Your task to perform on an android device: show emergency info Image 0: 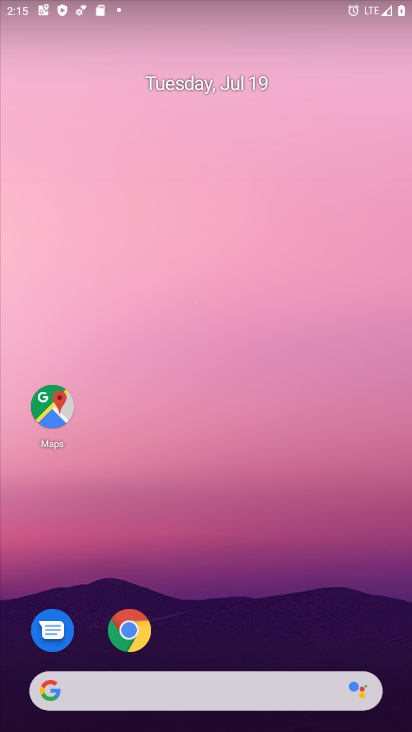
Step 0: press home button
Your task to perform on an android device: show emergency info Image 1: 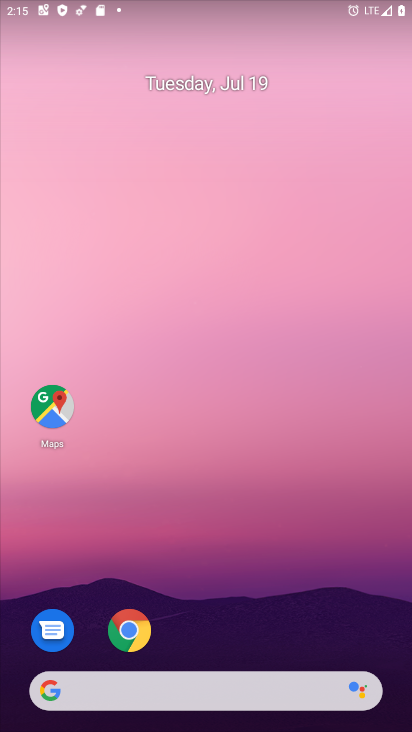
Step 1: drag from (223, 650) to (244, 91)
Your task to perform on an android device: show emergency info Image 2: 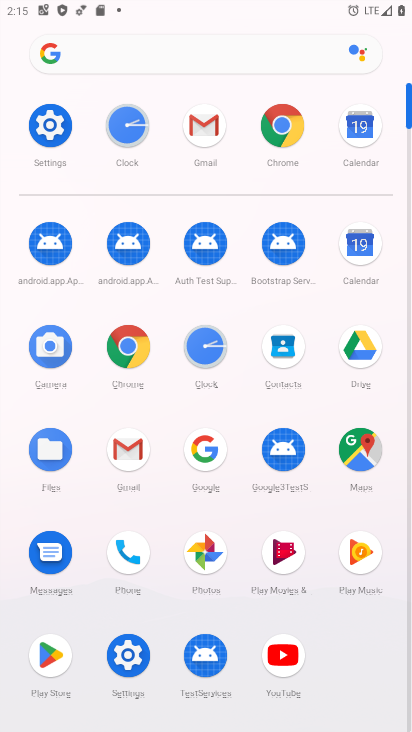
Step 2: click (48, 117)
Your task to perform on an android device: show emergency info Image 3: 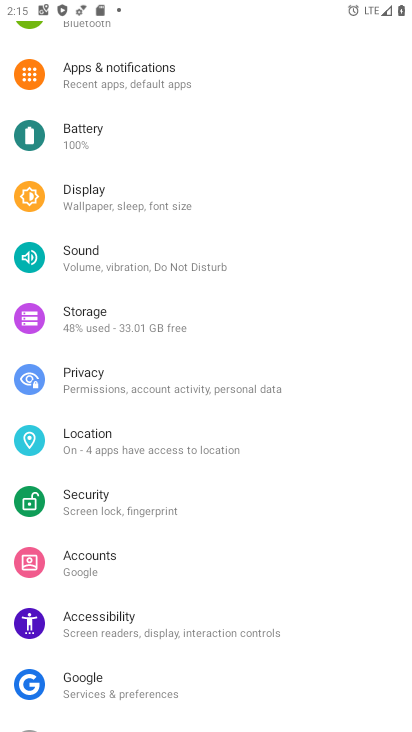
Step 3: drag from (134, 661) to (135, 174)
Your task to perform on an android device: show emergency info Image 4: 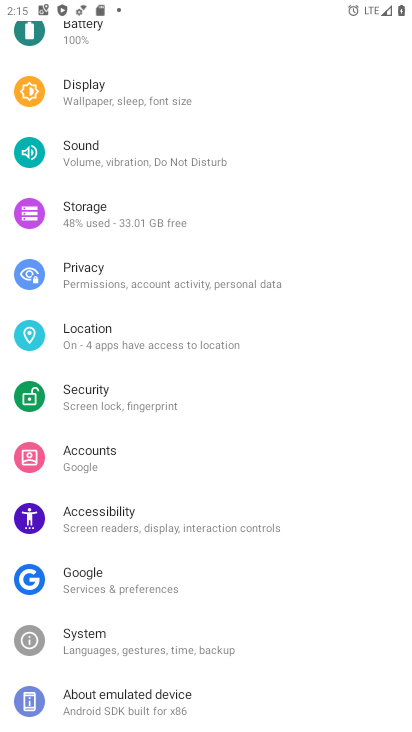
Step 4: click (156, 702)
Your task to perform on an android device: show emergency info Image 5: 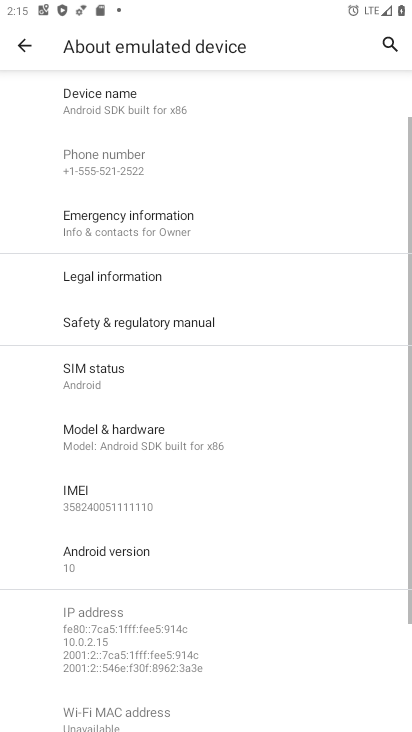
Step 5: click (210, 223)
Your task to perform on an android device: show emergency info Image 6: 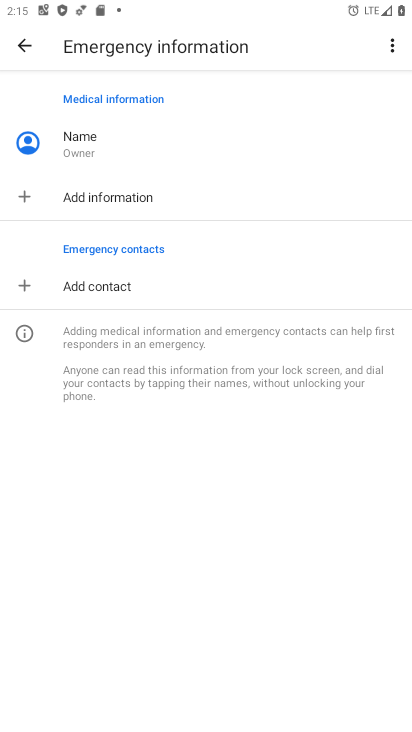
Step 6: task complete